Your task to perform on an android device: turn on sleep mode Image 0: 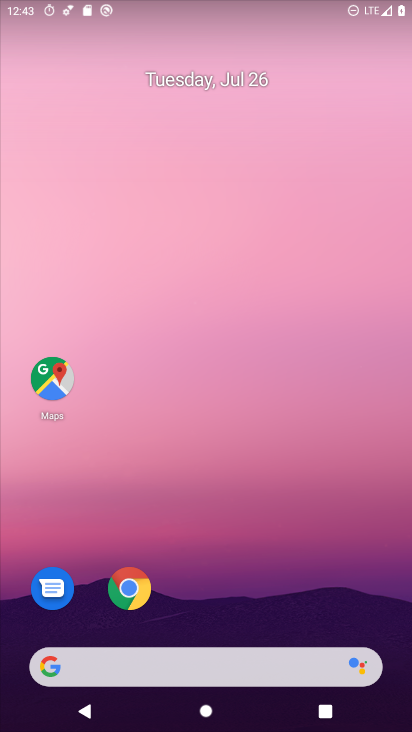
Step 0: drag from (232, 573) to (249, 120)
Your task to perform on an android device: turn on sleep mode Image 1: 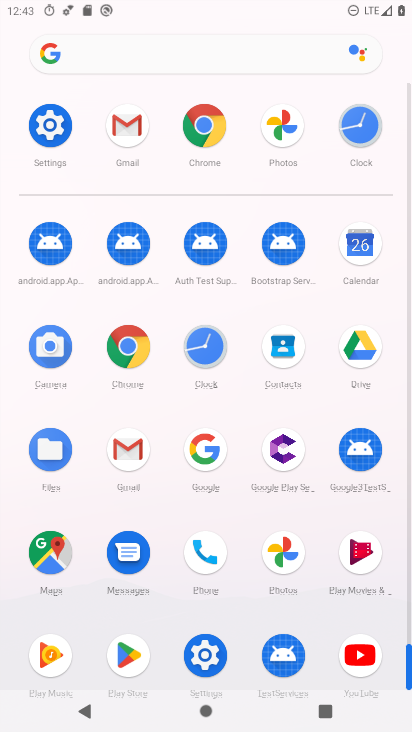
Step 1: task complete